Your task to perform on an android device: change notification settings in the gmail app Image 0: 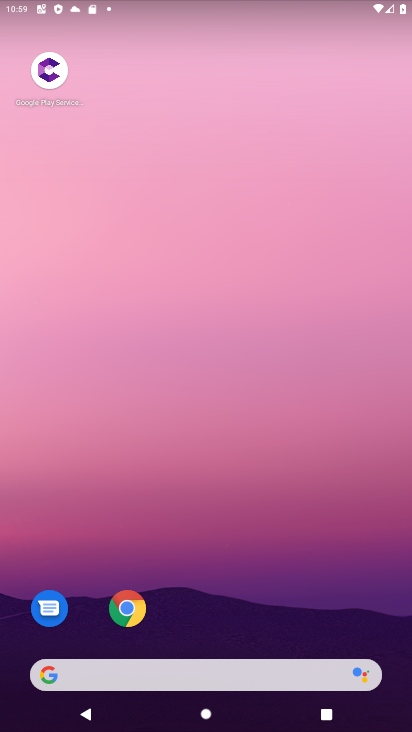
Step 0: drag from (335, 496) to (272, 24)
Your task to perform on an android device: change notification settings in the gmail app Image 1: 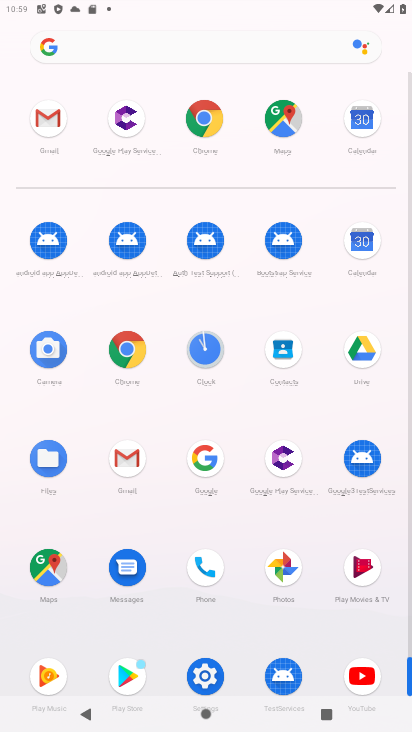
Step 1: drag from (8, 632) to (4, 309)
Your task to perform on an android device: change notification settings in the gmail app Image 2: 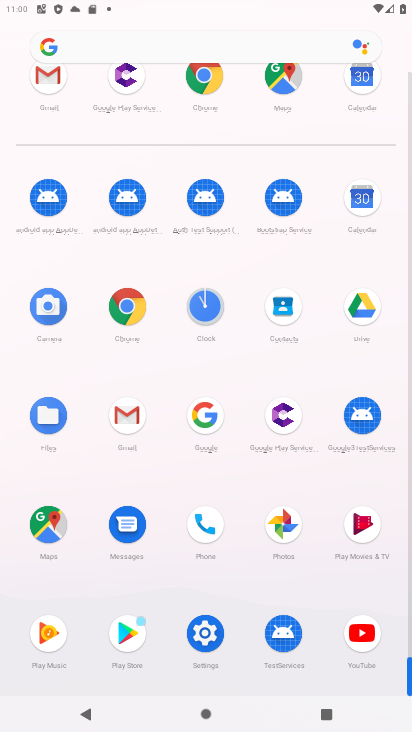
Step 2: drag from (13, 579) to (0, 331)
Your task to perform on an android device: change notification settings in the gmail app Image 3: 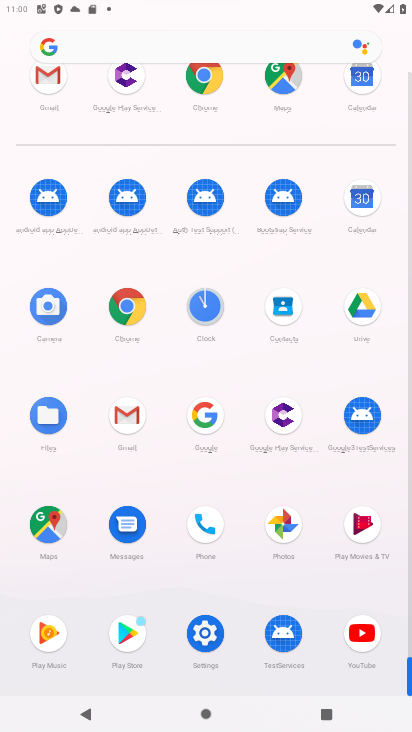
Step 3: click (127, 411)
Your task to perform on an android device: change notification settings in the gmail app Image 4: 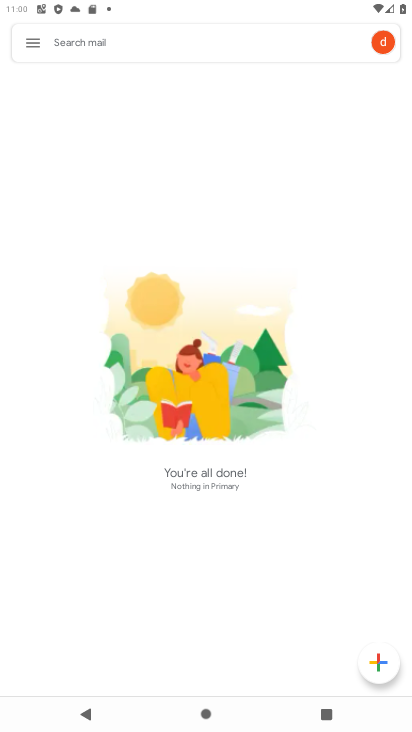
Step 4: click (35, 38)
Your task to perform on an android device: change notification settings in the gmail app Image 5: 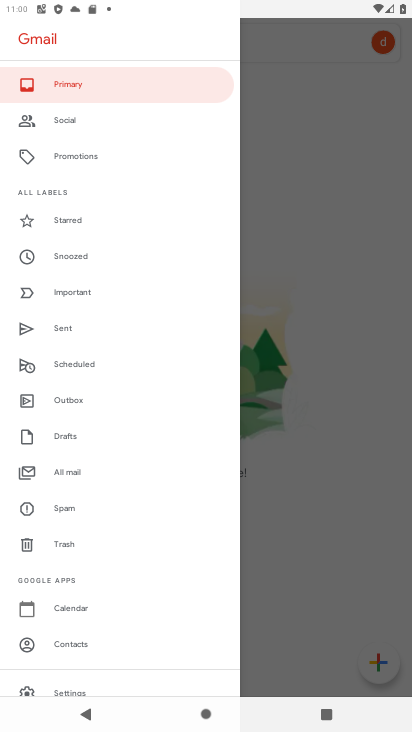
Step 5: drag from (147, 615) to (148, 169)
Your task to perform on an android device: change notification settings in the gmail app Image 6: 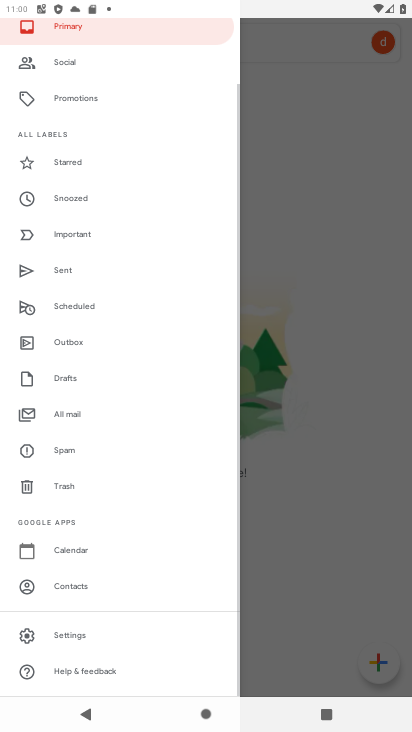
Step 6: click (85, 632)
Your task to perform on an android device: change notification settings in the gmail app Image 7: 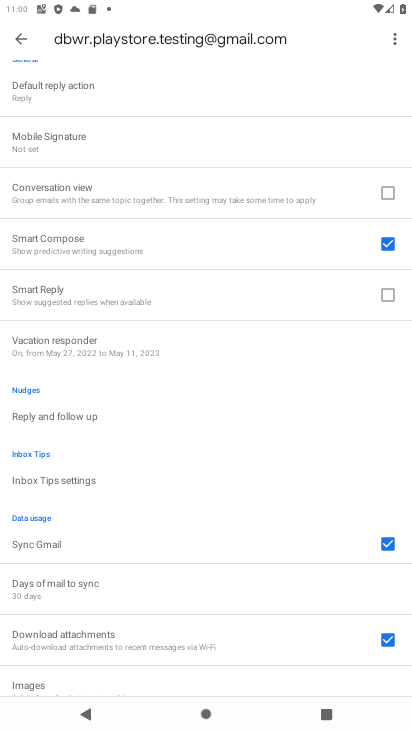
Step 7: drag from (144, 253) to (176, 632)
Your task to perform on an android device: change notification settings in the gmail app Image 8: 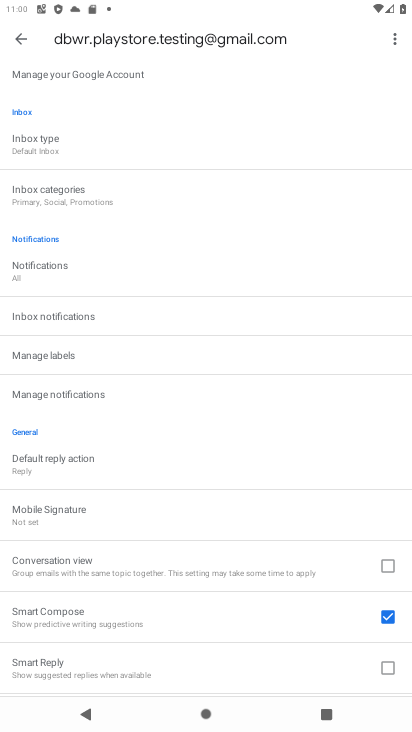
Step 8: click (96, 393)
Your task to perform on an android device: change notification settings in the gmail app Image 9: 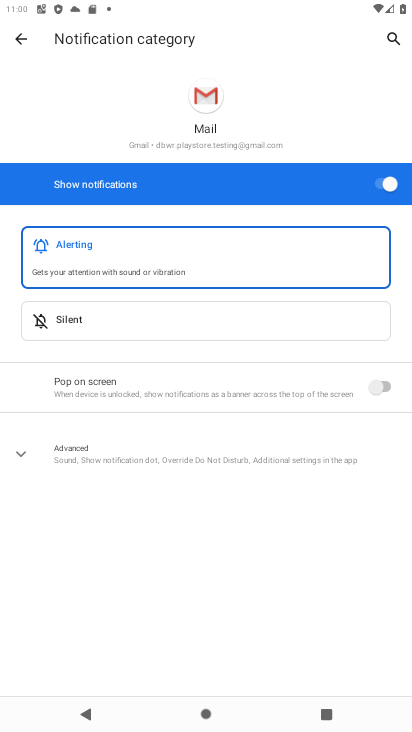
Step 9: click (385, 177)
Your task to perform on an android device: change notification settings in the gmail app Image 10: 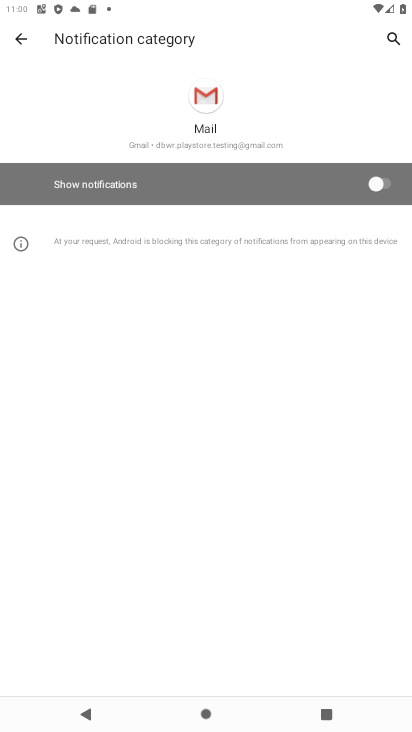
Step 10: task complete